Your task to perform on an android device: Search for pizza restaurants on Maps Image 0: 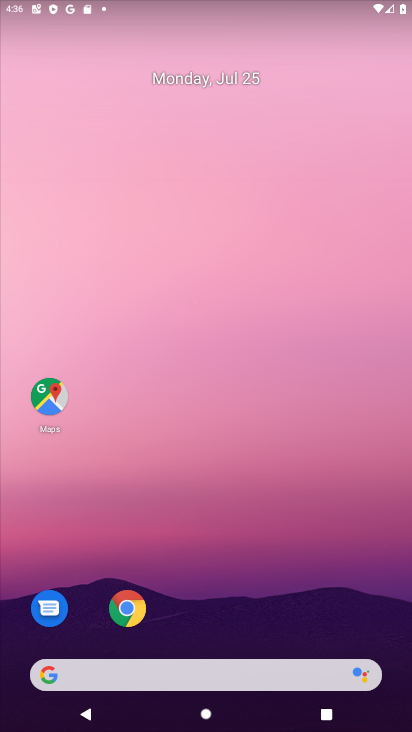
Step 0: press home button
Your task to perform on an android device: Search for pizza restaurants on Maps Image 1: 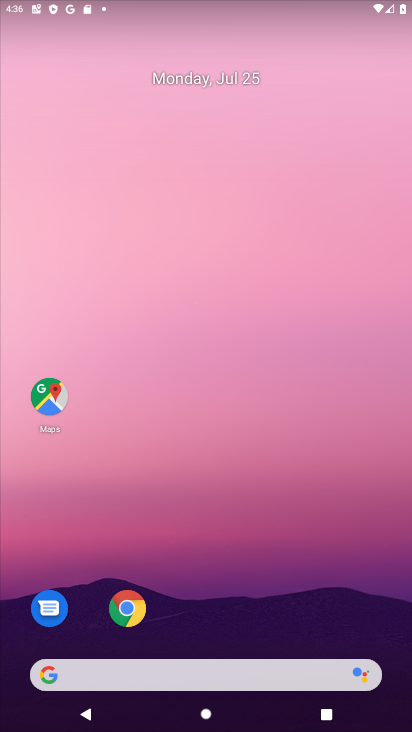
Step 1: click (47, 386)
Your task to perform on an android device: Search for pizza restaurants on Maps Image 2: 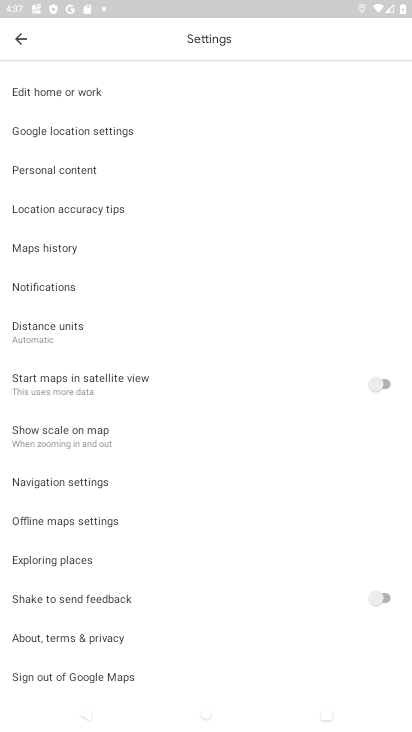
Step 2: click (20, 31)
Your task to perform on an android device: Search for pizza restaurants on Maps Image 3: 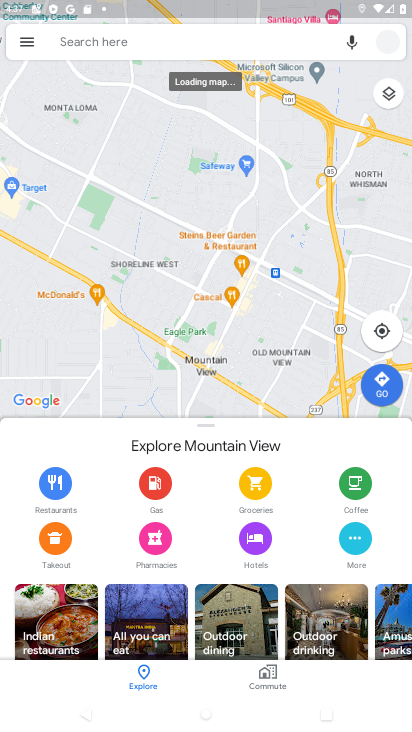
Step 3: click (144, 37)
Your task to perform on an android device: Search for pizza restaurants on Maps Image 4: 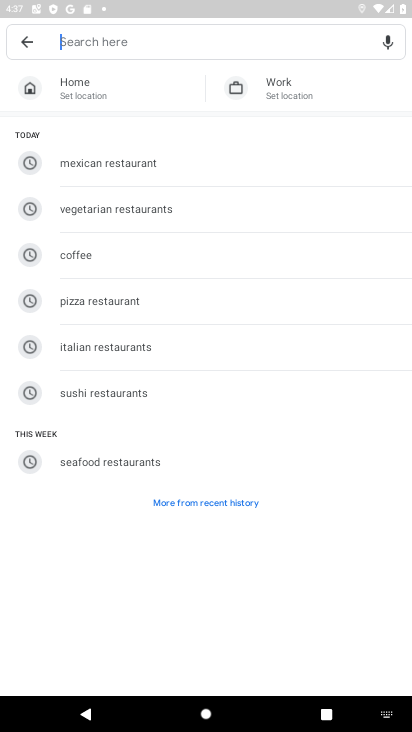
Step 4: click (78, 306)
Your task to perform on an android device: Search for pizza restaurants on Maps Image 5: 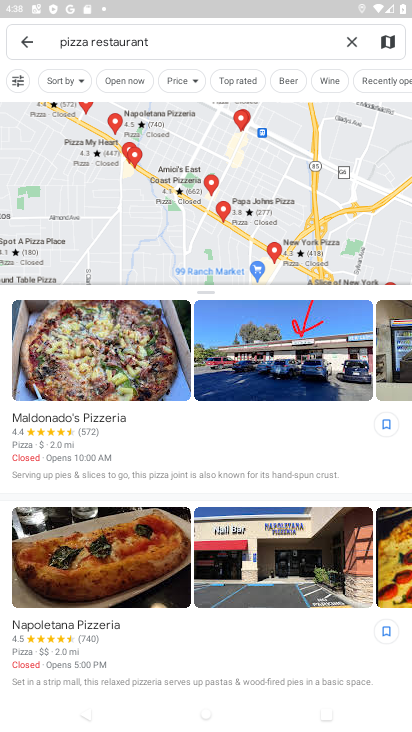
Step 5: task complete